Your task to perform on an android device: open device folders in google photos Image 0: 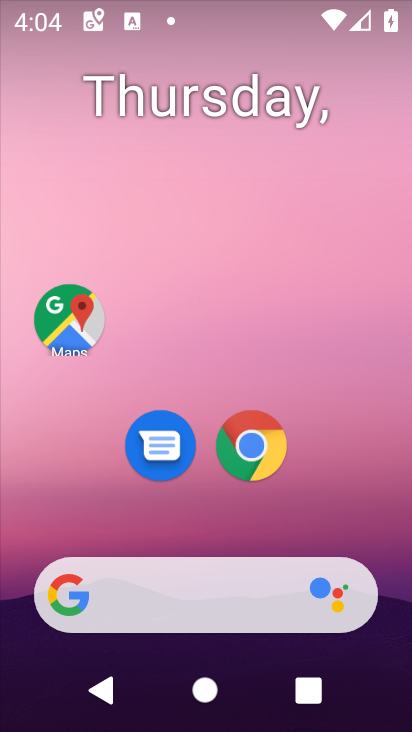
Step 0: drag from (375, 453) to (335, 0)
Your task to perform on an android device: open device folders in google photos Image 1: 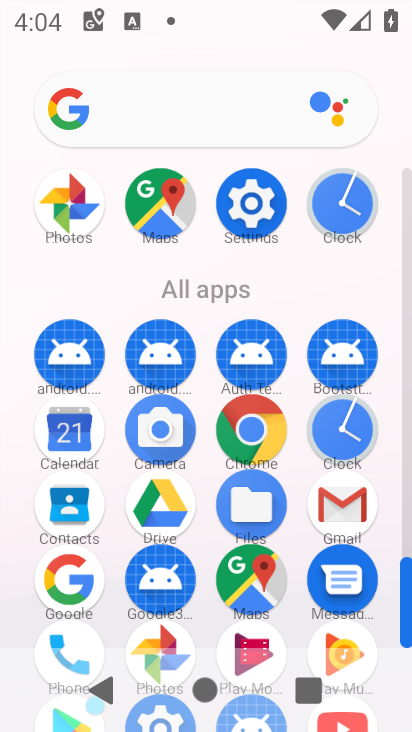
Step 1: click (78, 212)
Your task to perform on an android device: open device folders in google photos Image 2: 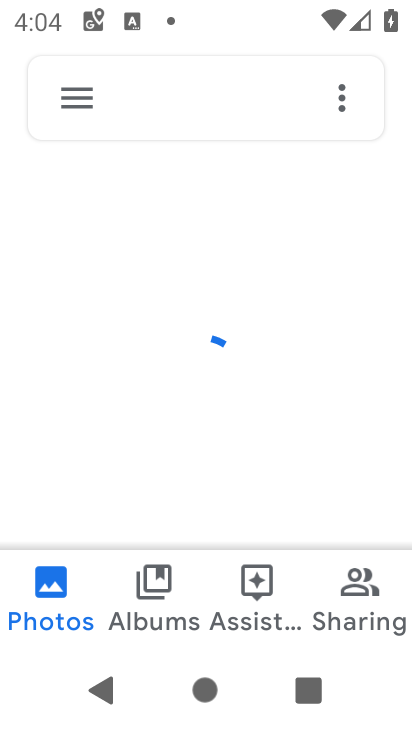
Step 2: click (71, 100)
Your task to perform on an android device: open device folders in google photos Image 3: 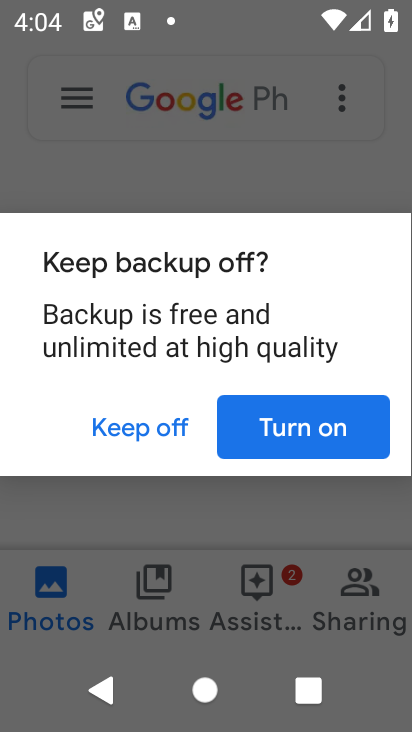
Step 3: click (305, 421)
Your task to perform on an android device: open device folders in google photos Image 4: 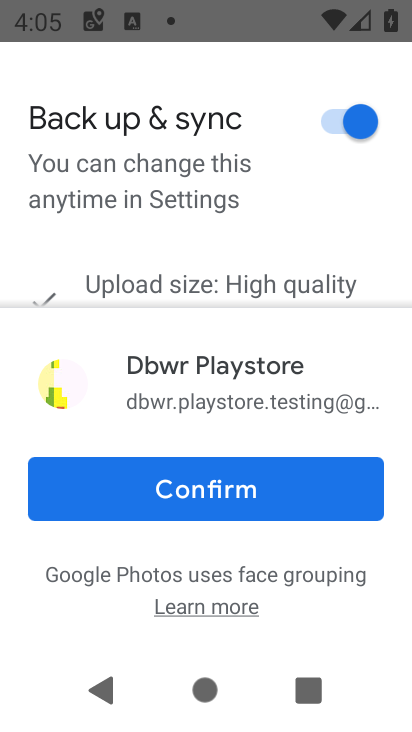
Step 4: click (233, 474)
Your task to perform on an android device: open device folders in google photos Image 5: 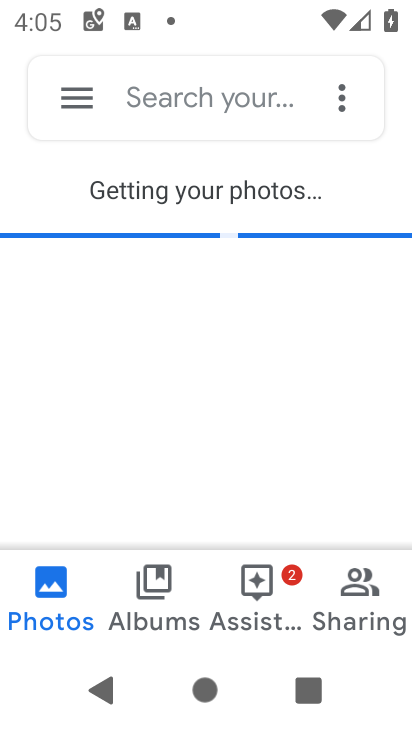
Step 5: click (69, 108)
Your task to perform on an android device: open device folders in google photos Image 6: 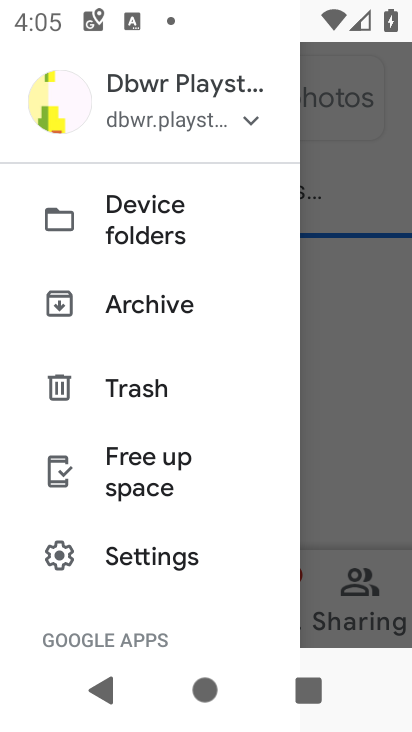
Step 6: drag from (233, 540) to (190, 121)
Your task to perform on an android device: open device folders in google photos Image 7: 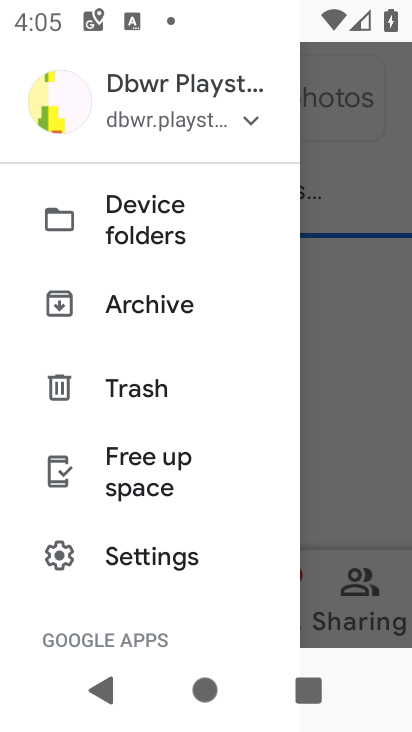
Step 7: click (168, 220)
Your task to perform on an android device: open device folders in google photos Image 8: 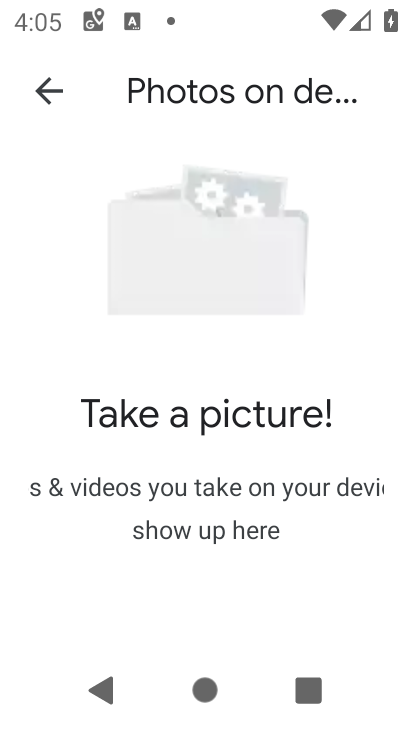
Step 8: task complete